Your task to perform on an android device: Open Google Chrome and click the shortcut for Amazon.com Image 0: 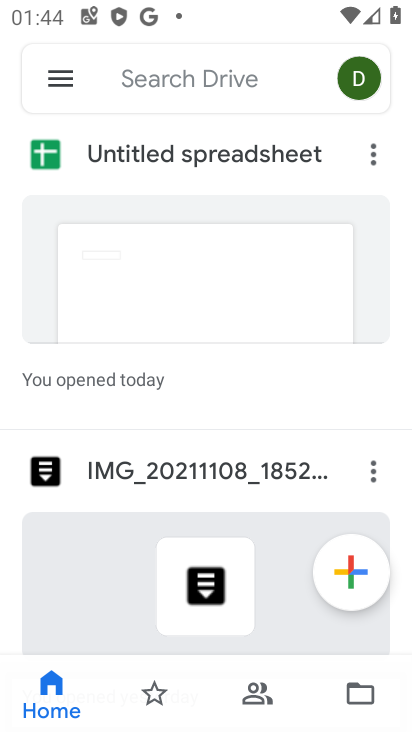
Step 0: press home button
Your task to perform on an android device: Open Google Chrome and click the shortcut for Amazon.com Image 1: 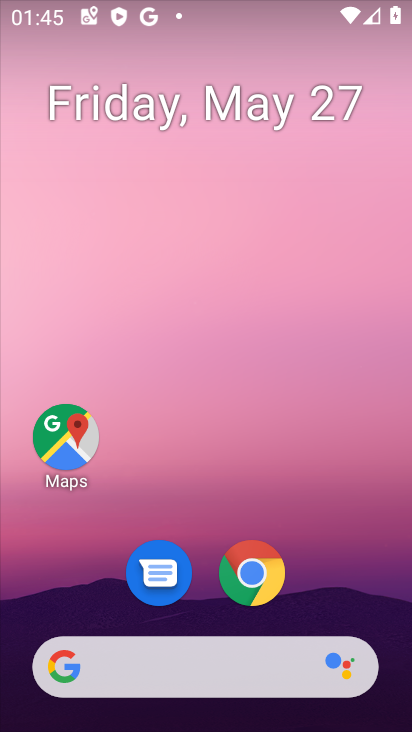
Step 1: click (243, 573)
Your task to perform on an android device: Open Google Chrome and click the shortcut for Amazon.com Image 2: 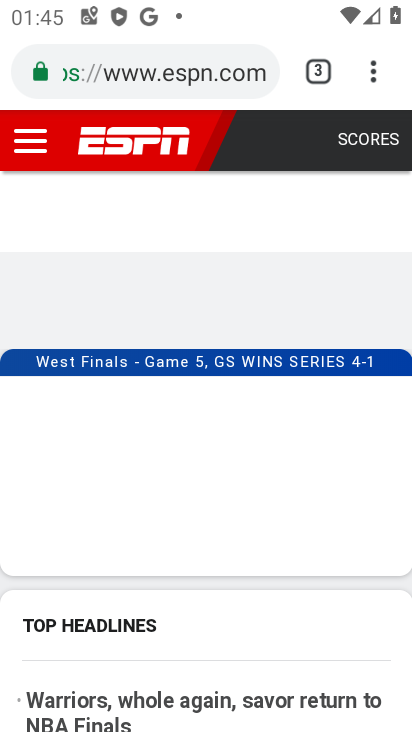
Step 2: click (378, 72)
Your task to perform on an android device: Open Google Chrome and click the shortcut for Amazon.com Image 3: 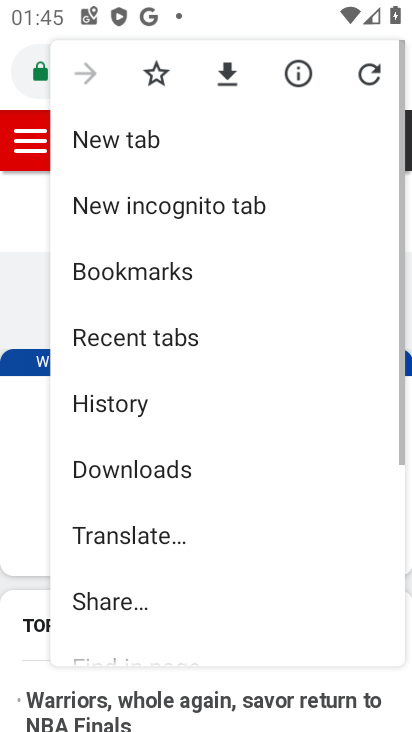
Step 3: click (214, 261)
Your task to perform on an android device: Open Google Chrome and click the shortcut for Amazon.com Image 4: 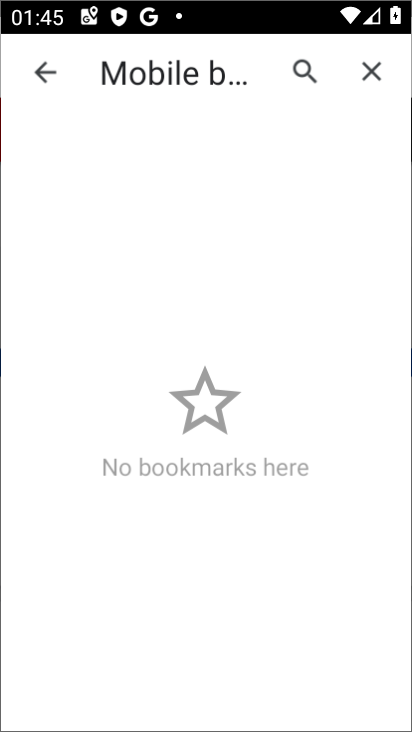
Step 4: task complete